Your task to perform on an android device: show emergency info Image 0: 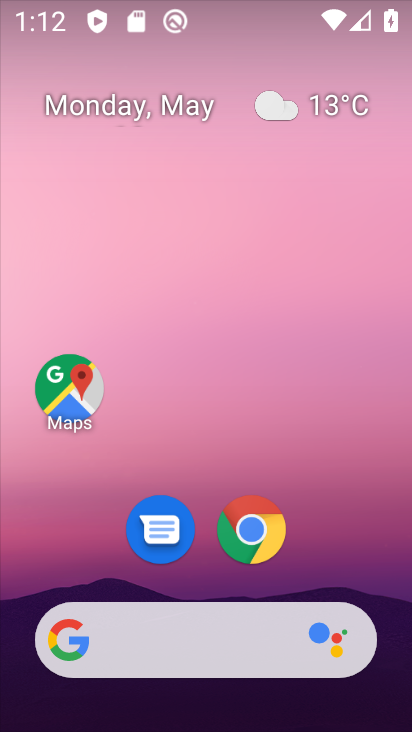
Step 0: drag from (325, 538) to (255, 139)
Your task to perform on an android device: show emergency info Image 1: 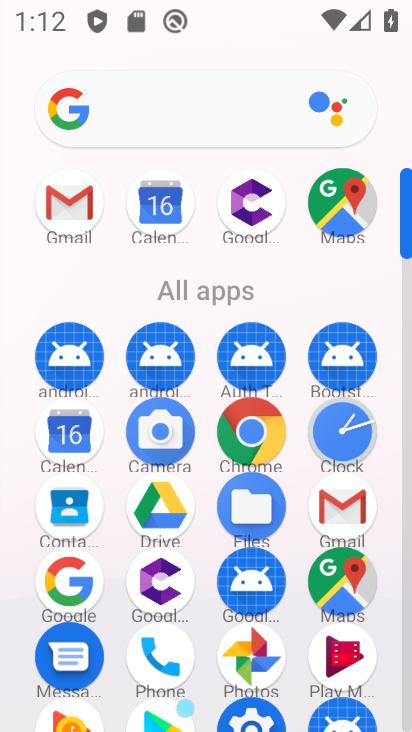
Step 1: click (410, 712)
Your task to perform on an android device: show emergency info Image 2: 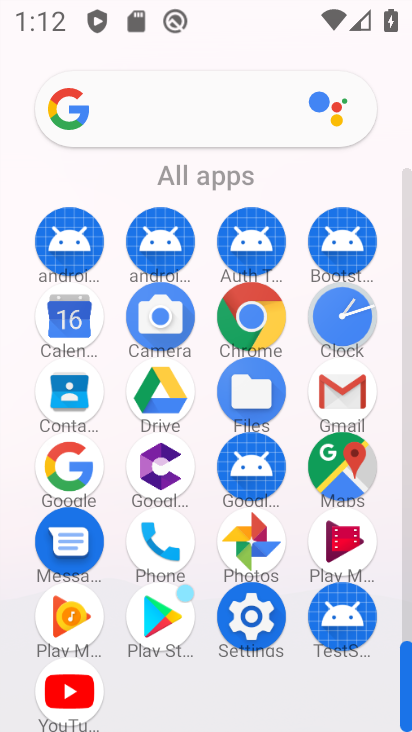
Step 2: click (265, 625)
Your task to perform on an android device: show emergency info Image 3: 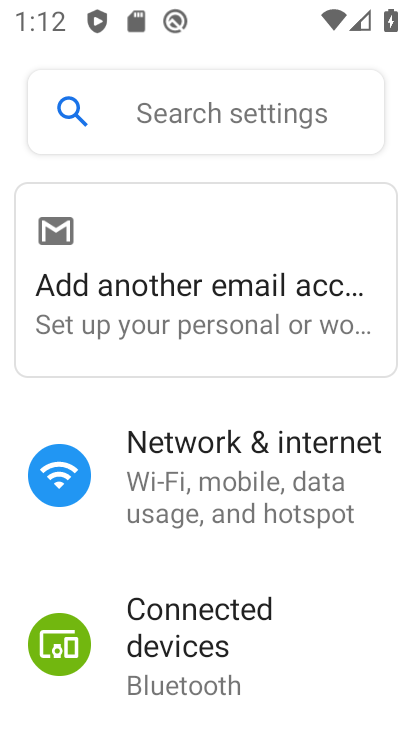
Step 3: drag from (302, 661) to (237, 1)
Your task to perform on an android device: show emergency info Image 4: 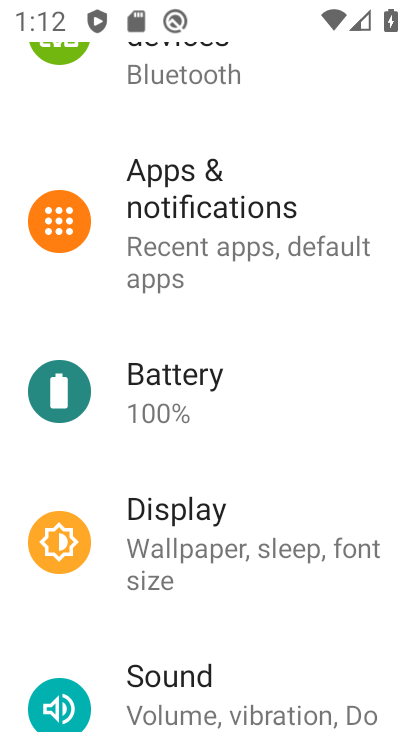
Step 4: drag from (301, 628) to (240, 72)
Your task to perform on an android device: show emergency info Image 5: 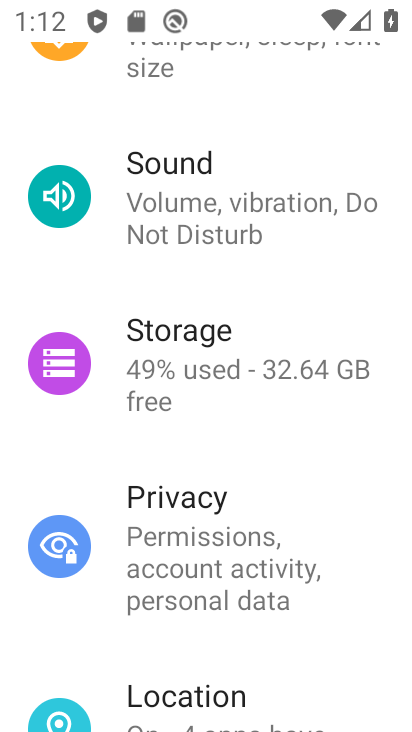
Step 5: drag from (322, 717) to (262, 247)
Your task to perform on an android device: show emergency info Image 6: 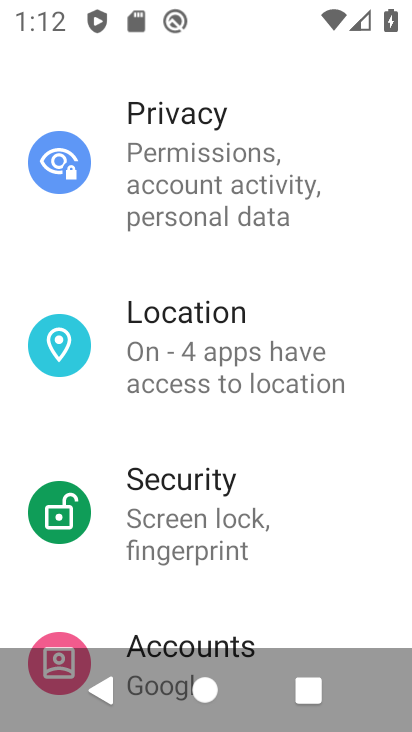
Step 6: drag from (305, 624) to (231, 233)
Your task to perform on an android device: show emergency info Image 7: 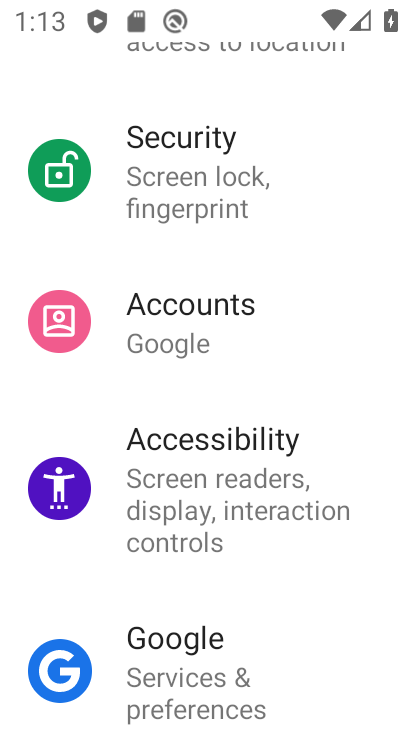
Step 7: drag from (284, 651) to (188, 99)
Your task to perform on an android device: show emergency info Image 8: 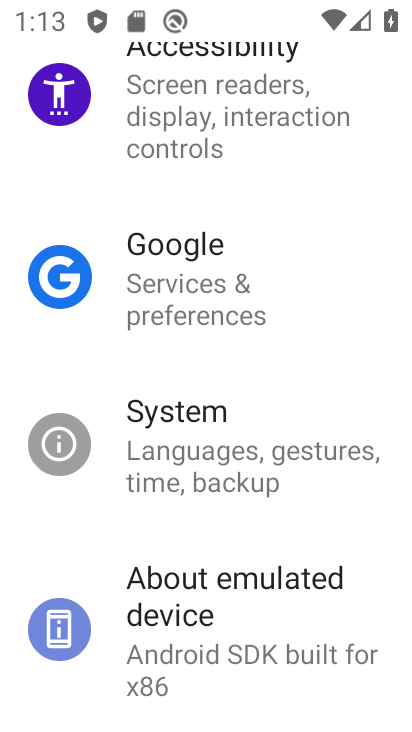
Step 8: click (252, 601)
Your task to perform on an android device: show emergency info Image 9: 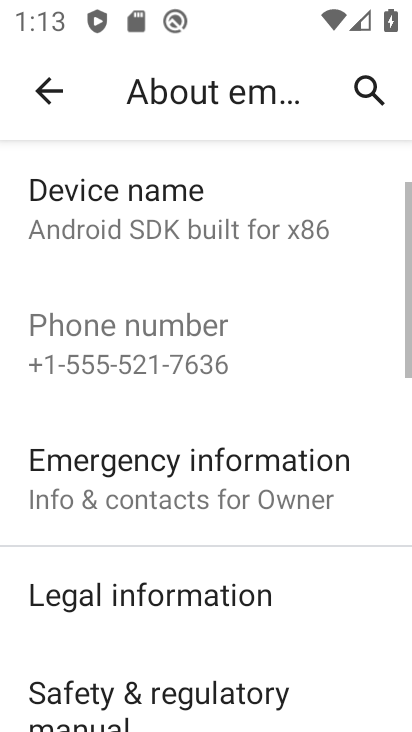
Step 9: click (320, 503)
Your task to perform on an android device: show emergency info Image 10: 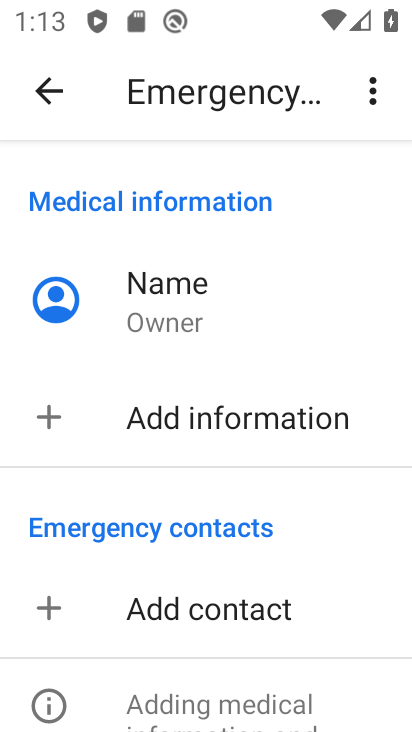
Step 10: task complete